Your task to perform on an android device: turn smart compose on in the gmail app Image 0: 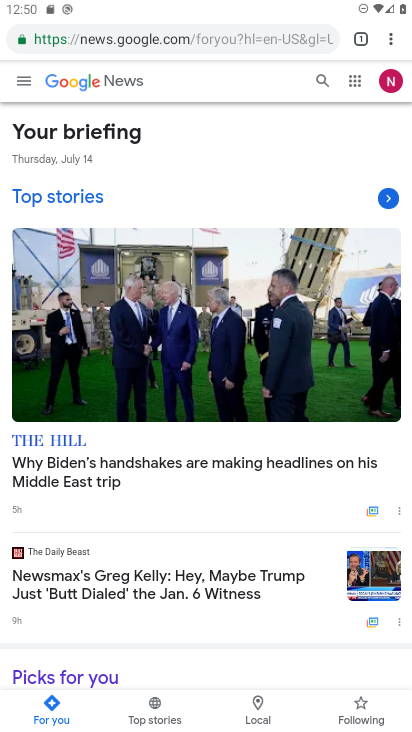
Step 0: press home button
Your task to perform on an android device: turn smart compose on in the gmail app Image 1: 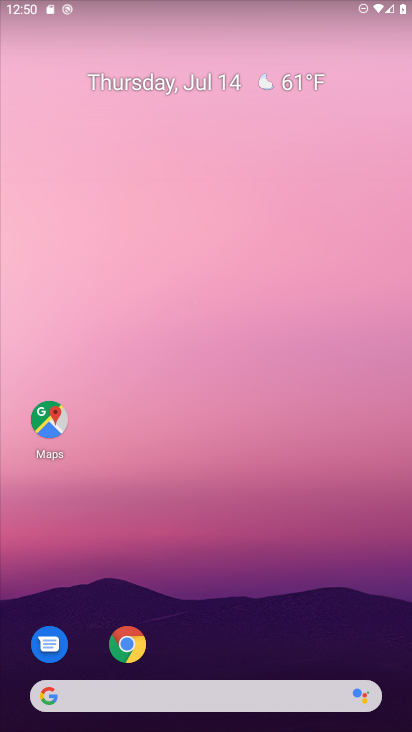
Step 1: drag from (234, 396) to (223, 128)
Your task to perform on an android device: turn smart compose on in the gmail app Image 2: 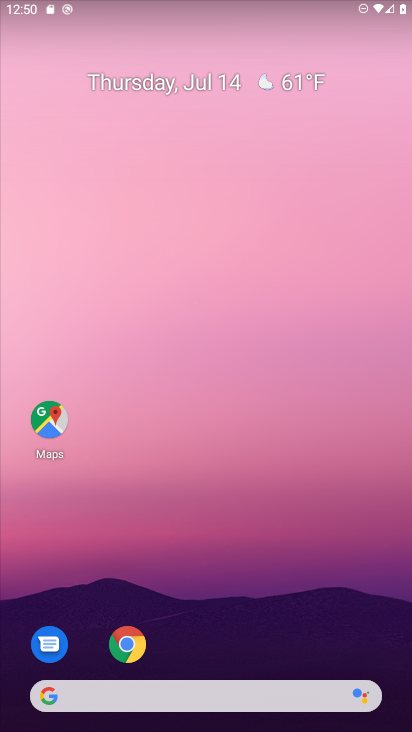
Step 2: drag from (227, 408) to (192, 80)
Your task to perform on an android device: turn smart compose on in the gmail app Image 3: 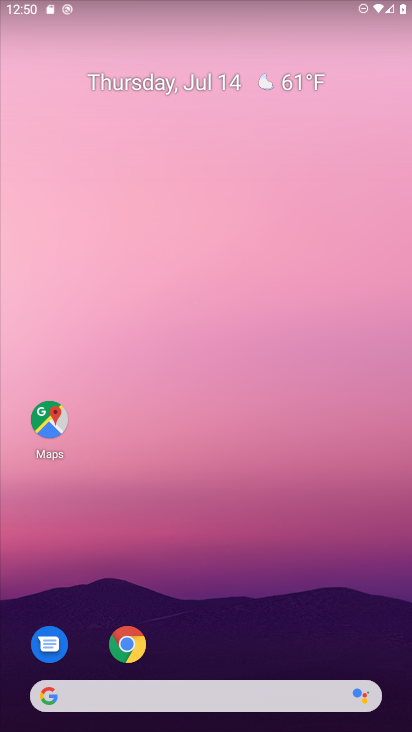
Step 3: drag from (195, 325) to (195, 36)
Your task to perform on an android device: turn smart compose on in the gmail app Image 4: 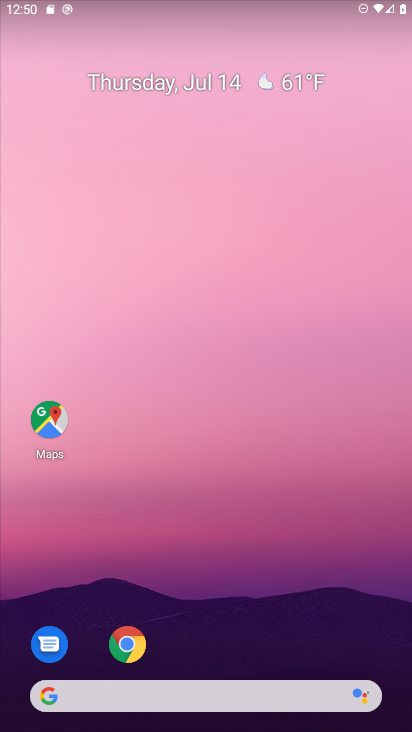
Step 4: drag from (240, 430) to (205, 7)
Your task to perform on an android device: turn smart compose on in the gmail app Image 5: 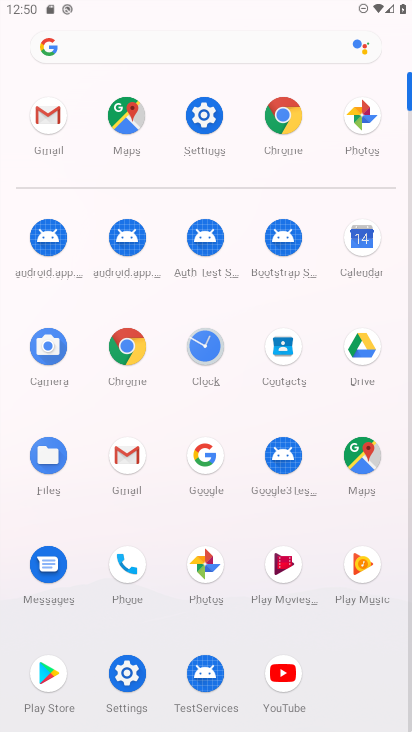
Step 5: click (54, 111)
Your task to perform on an android device: turn smart compose on in the gmail app Image 6: 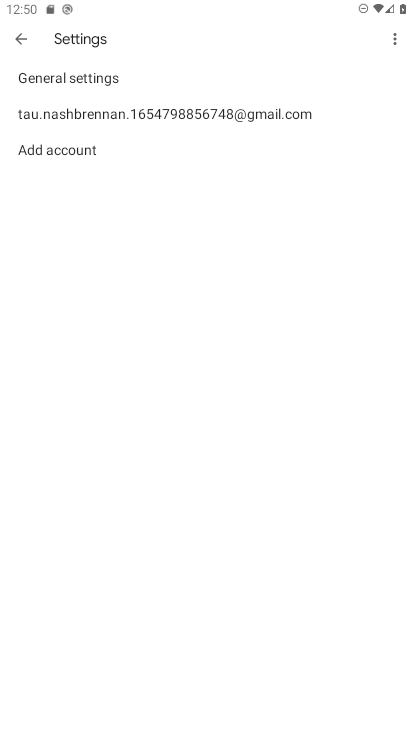
Step 6: click (261, 118)
Your task to perform on an android device: turn smart compose on in the gmail app Image 7: 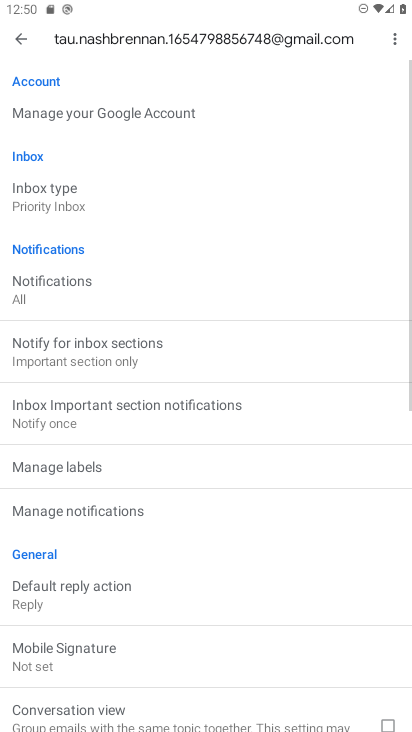
Step 7: task complete